Your task to perform on an android device: change the clock display to analog Image 0: 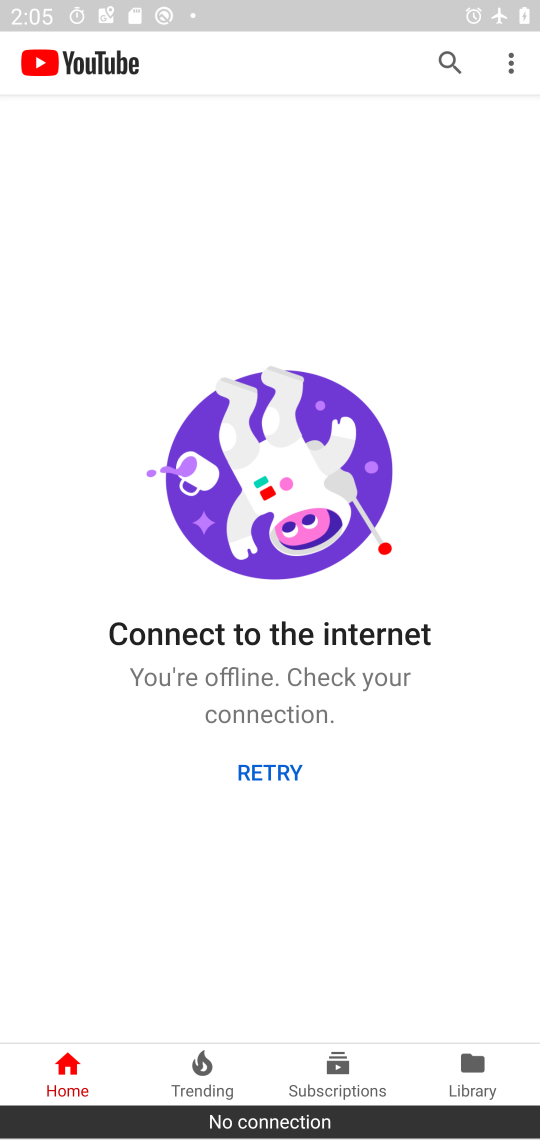
Step 0: press home button
Your task to perform on an android device: change the clock display to analog Image 1: 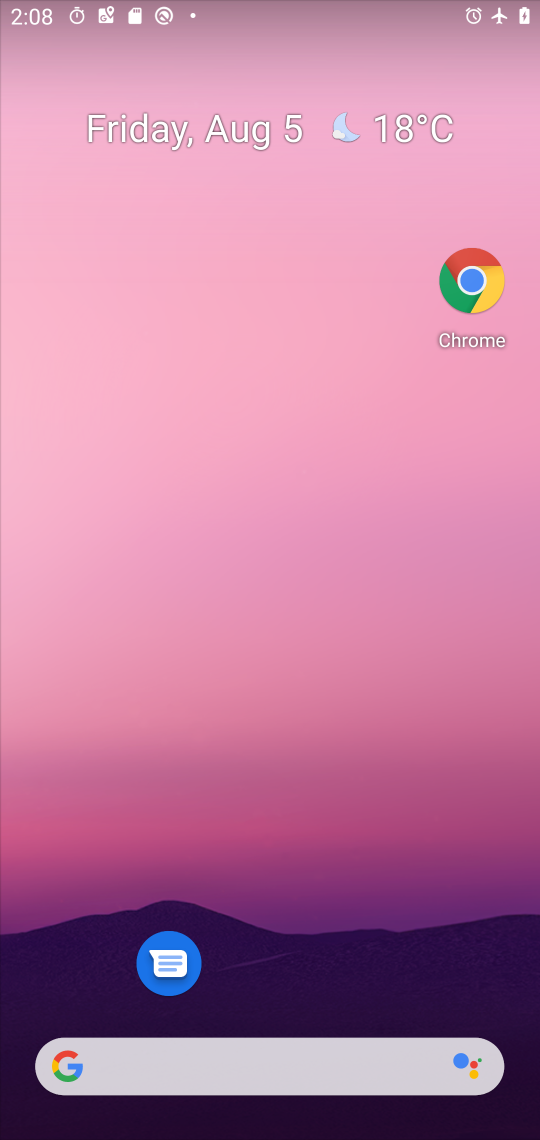
Step 1: drag from (237, 649) to (276, 49)
Your task to perform on an android device: change the clock display to analog Image 2: 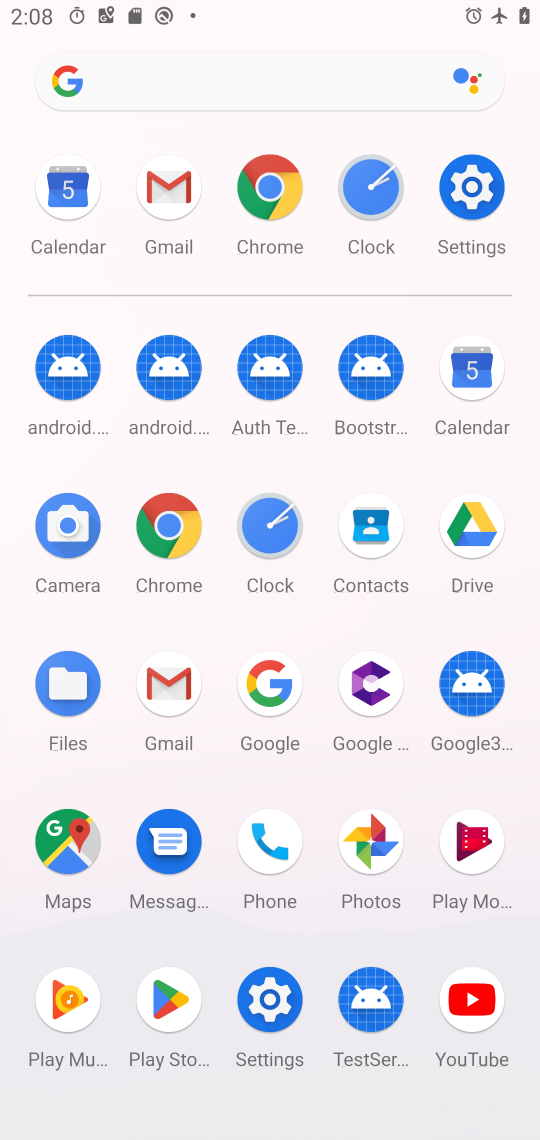
Step 2: click (356, 206)
Your task to perform on an android device: change the clock display to analog Image 3: 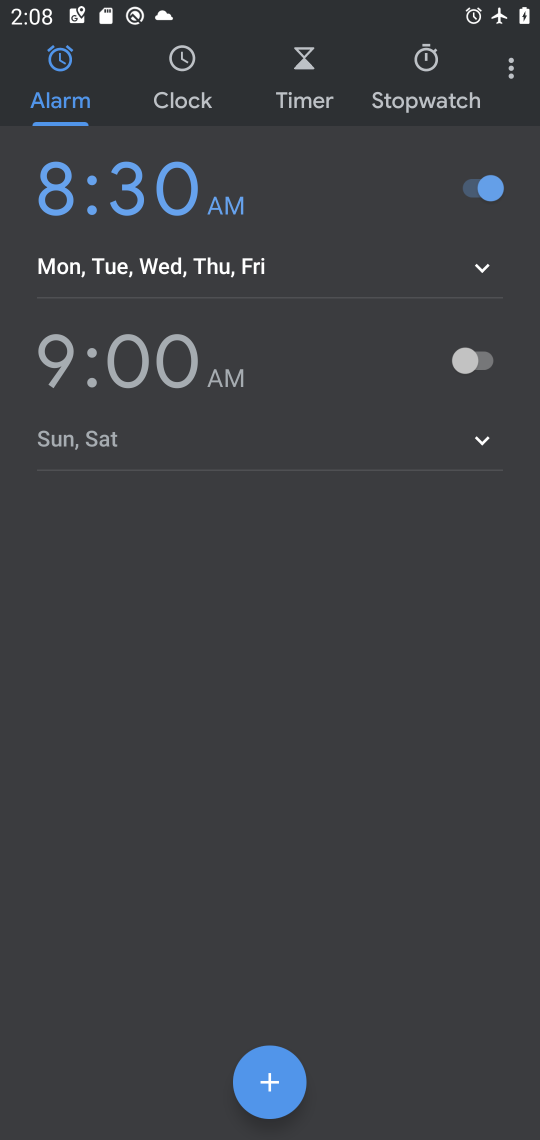
Step 3: click (506, 73)
Your task to perform on an android device: change the clock display to analog Image 4: 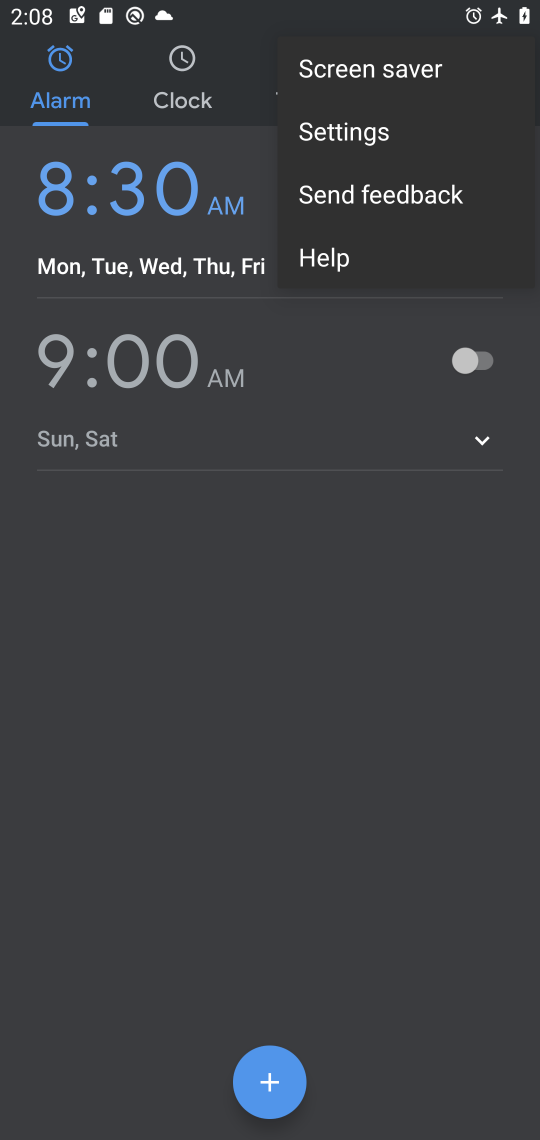
Step 4: click (376, 153)
Your task to perform on an android device: change the clock display to analog Image 5: 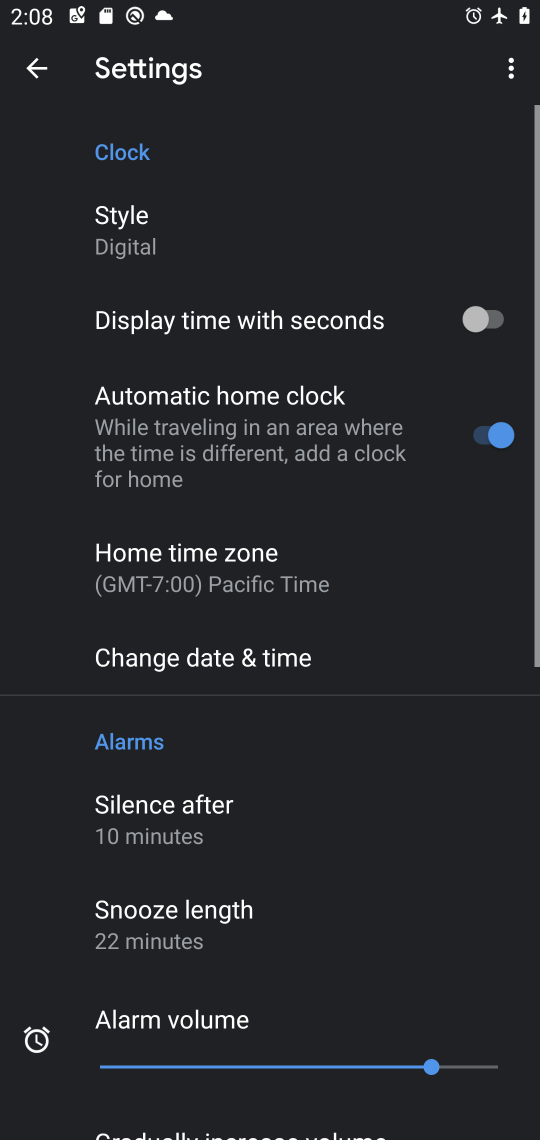
Step 5: click (127, 233)
Your task to perform on an android device: change the clock display to analog Image 6: 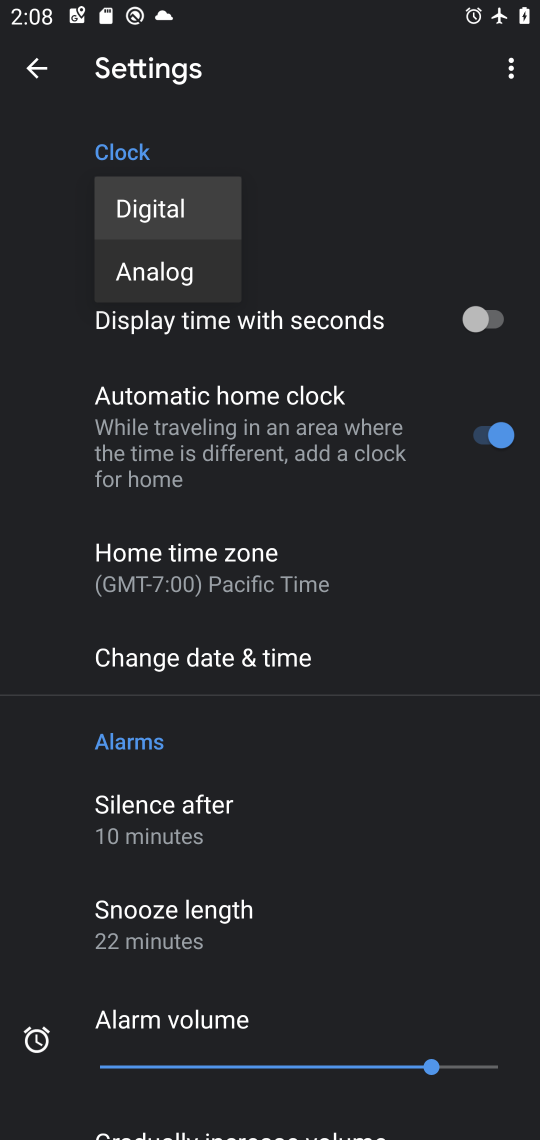
Step 6: click (184, 288)
Your task to perform on an android device: change the clock display to analog Image 7: 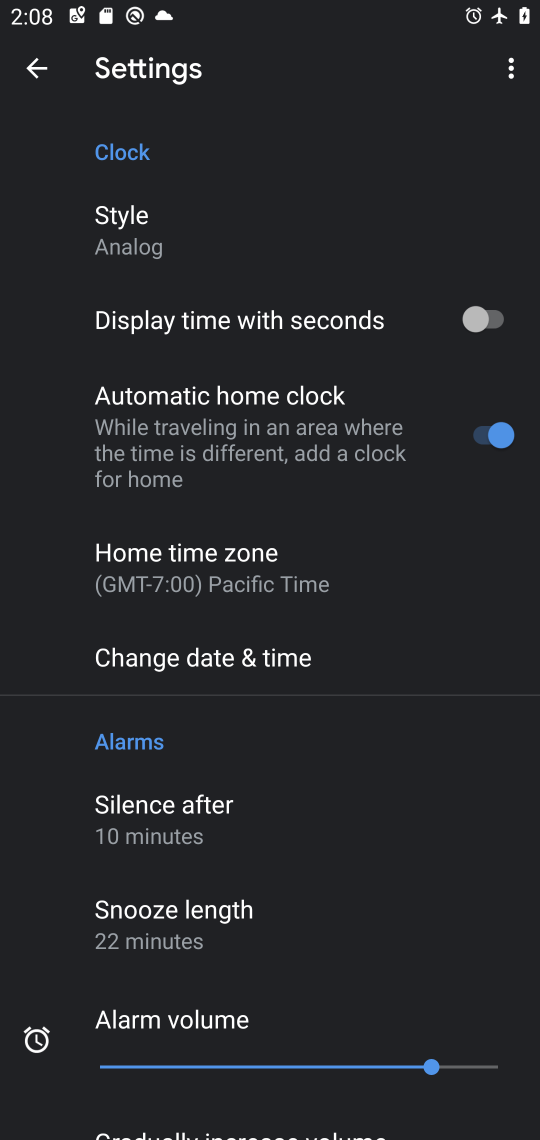
Step 7: task complete